Your task to perform on an android device: Go to settings Image 0: 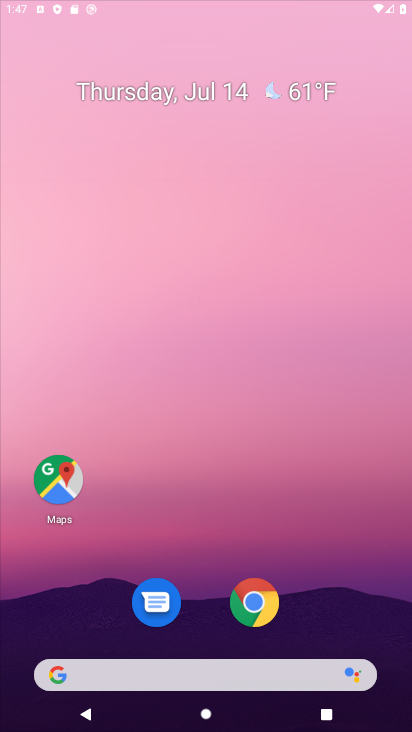
Step 0: click (240, 313)
Your task to perform on an android device: Go to settings Image 1: 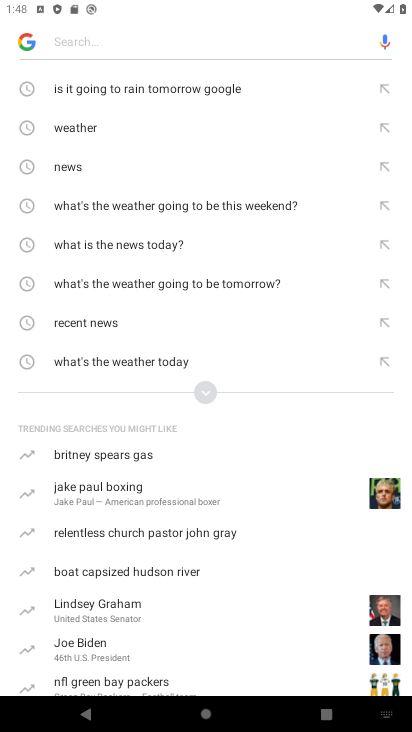
Step 1: task complete